Your task to perform on an android device: turn on location history Image 0: 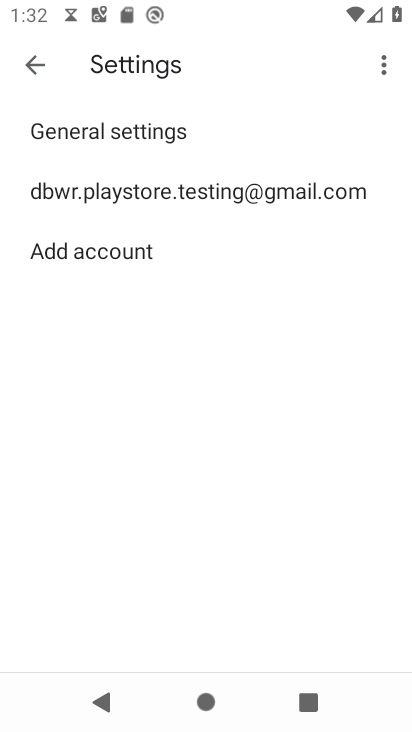
Step 0: click (254, 562)
Your task to perform on an android device: turn on location history Image 1: 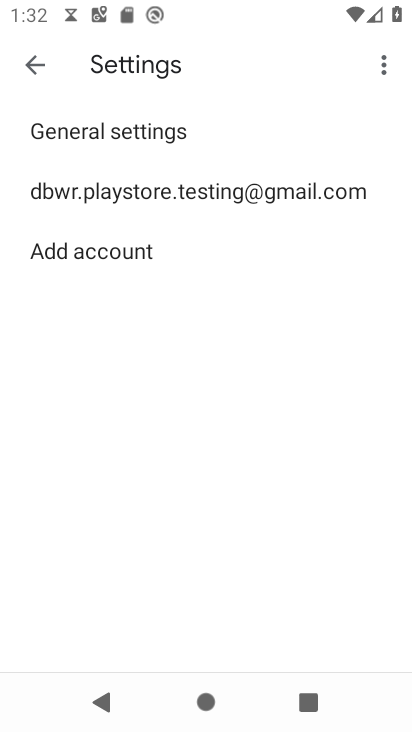
Step 1: press home button
Your task to perform on an android device: turn on location history Image 2: 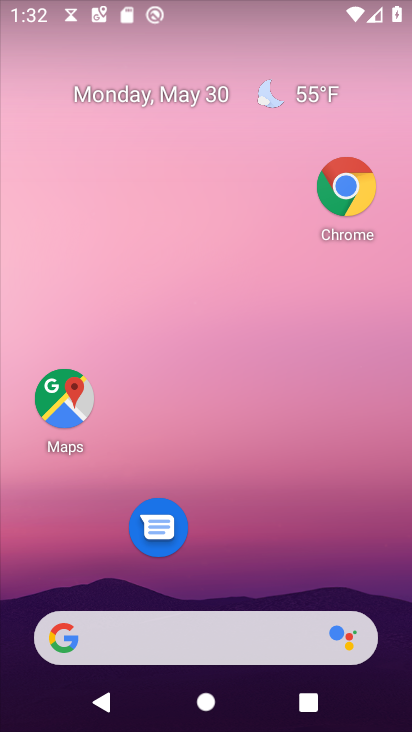
Step 2: drag from (239, 539) to (115, 9)
Your task to perform on an android device: turn on location history Image 3: 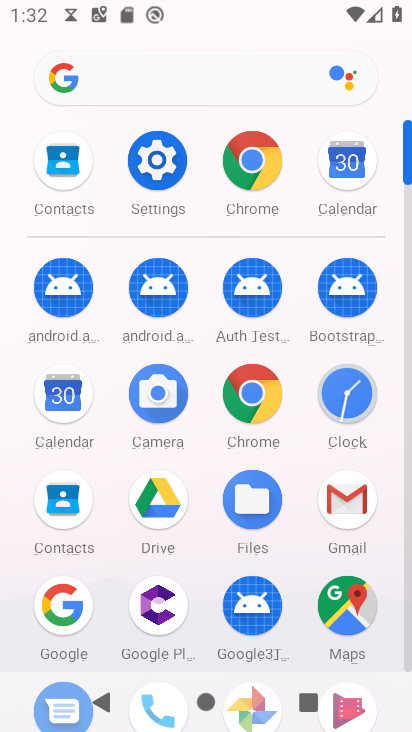
Step 3: click (158, 160)
Your task to perform on an android device: turn on location history Image 4: 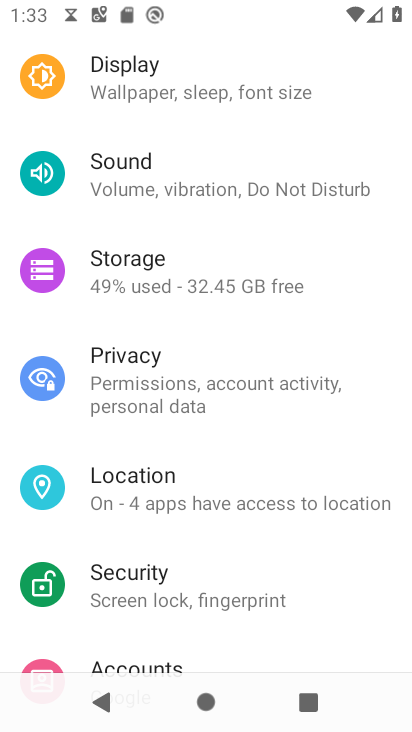
Step 4: drag from (214, 520) to (292, 157)
Your task to perform on an android device: turn on location history Image 5: 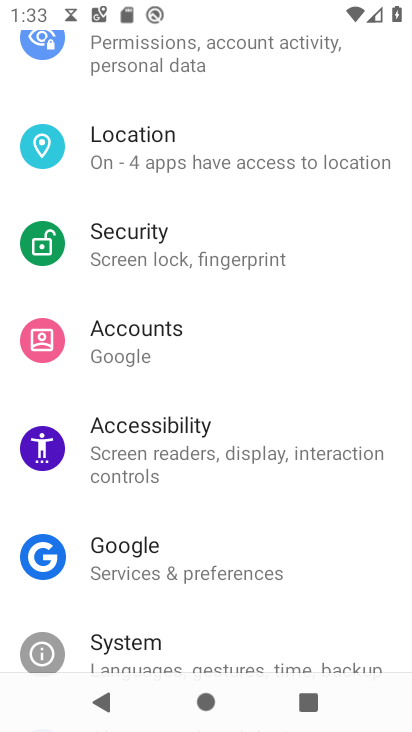
Step 5: click (171, 166)
Your task to perform on an android device: turn on location history Image 6: 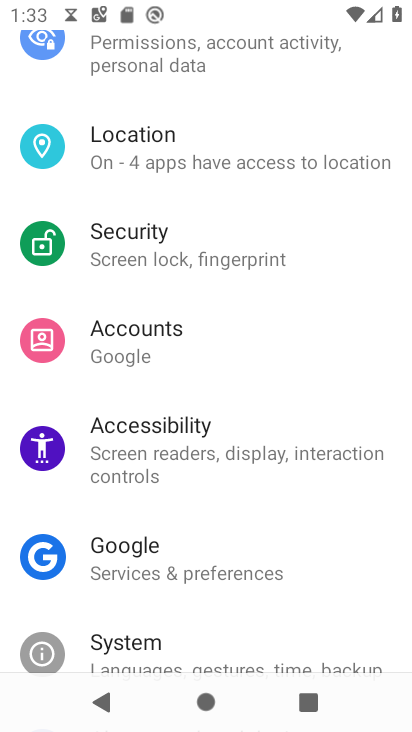
Step 6: click (171, 166)
Your task to perform on an android device: turn on location history Image 7: 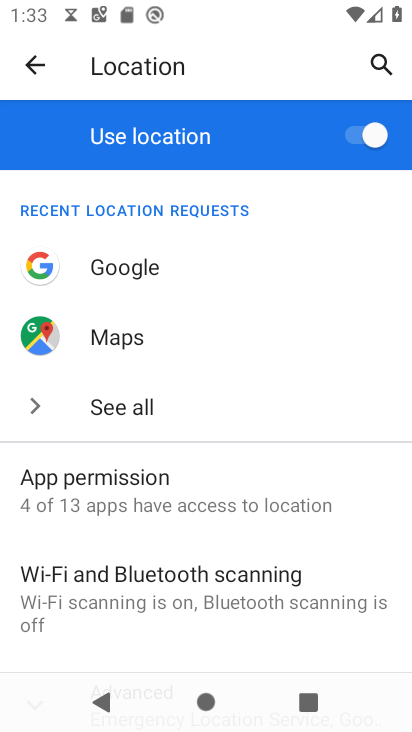
Step 7: drag from (116, 564) to (245, 118)
Your task to perform on an android device: turn on location history Image 8: 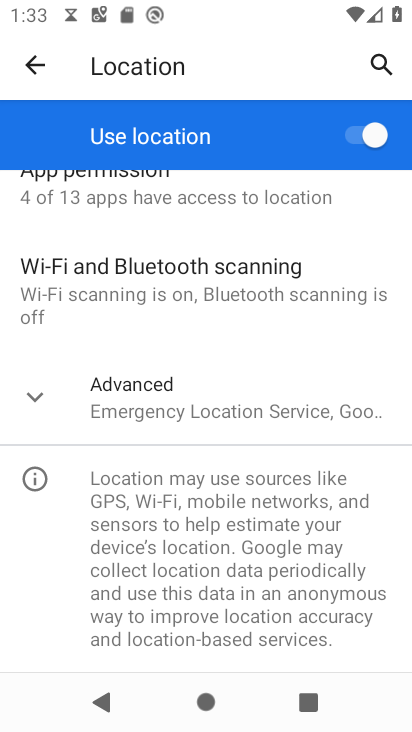
Step 8: drag from (123, 650) to (199, 374)
Your task to perform on an android device: turn on location history Image 9: 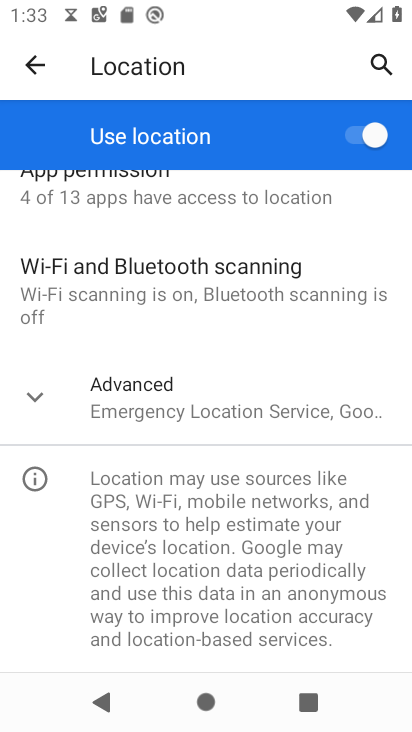
Step 9: click (135, 400)
Your task to perform on an android device: turn on location history Image 10: 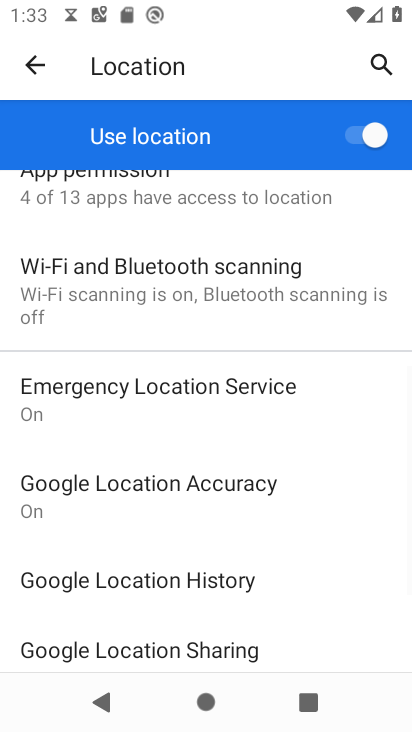
Step 10: click (161, 576)
Your task to perform on an android device: turn on location history Image 11: 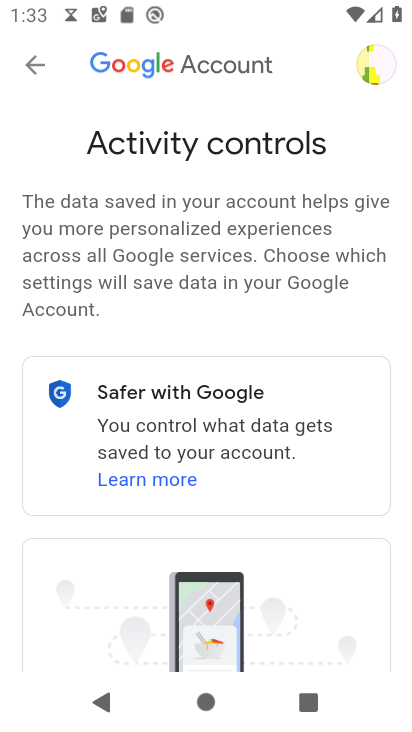
Step 11: task complete